Your task to perform on an android device: toggle priority inbox in the gmail app Image 0: 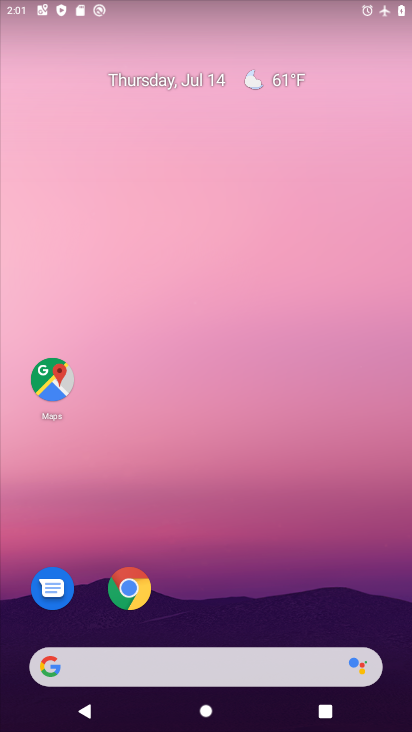
Step 0: drag from (283, 579) to (279, 143)
Your task to perform on an android device: toggle priority inbox in the gmail app Image 1: 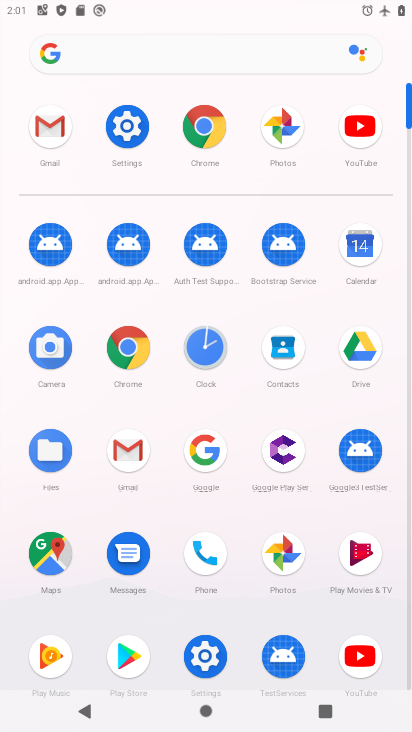
Step 1: click (135, 444)
Your task to perform on an android device: toggle priority inbox in the gmail app Image 2: 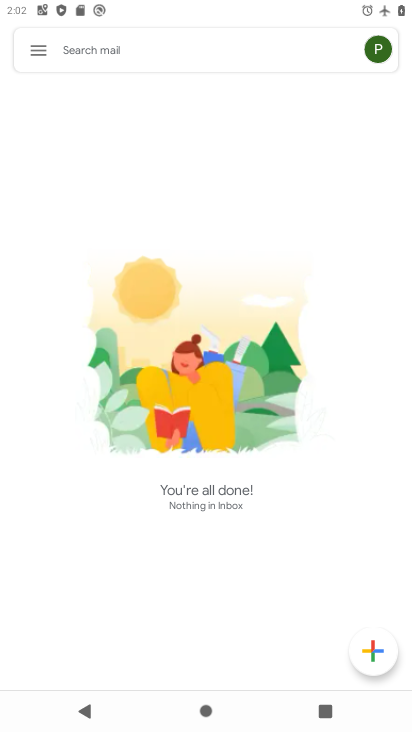
Step 2: click (31, 40)
Your task to perform on an android device: toggle priority inbox in the gmail app Image 3: 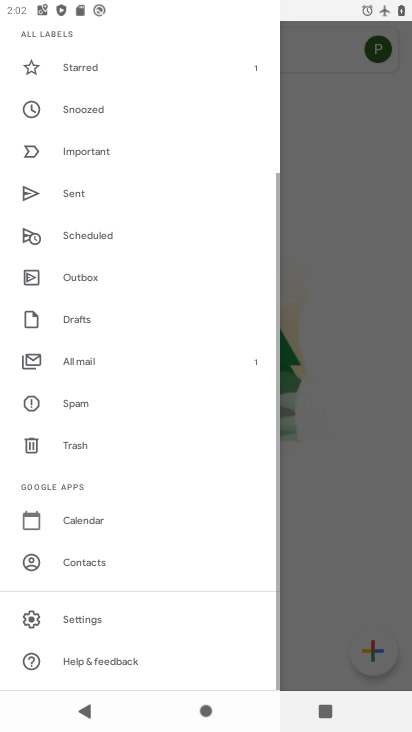
Step 3: click (33, 45)
Your task to perform on an android device: toggle priority inbox in the gmail app Image 4: 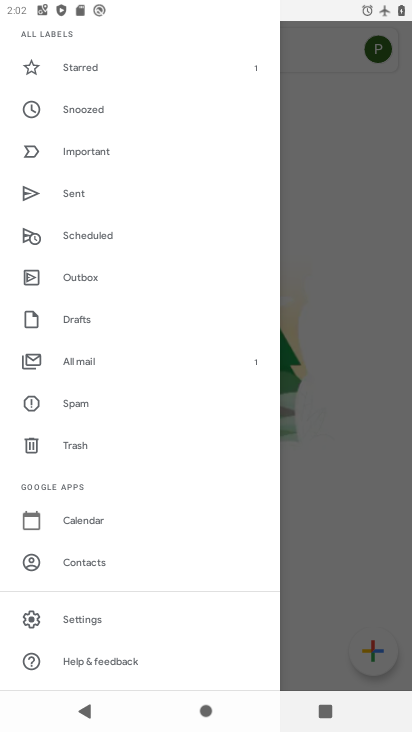
Step 4: click (77, 624)
Your task to perform on an android device: toggle priority inbox in the gmail app Image 5: 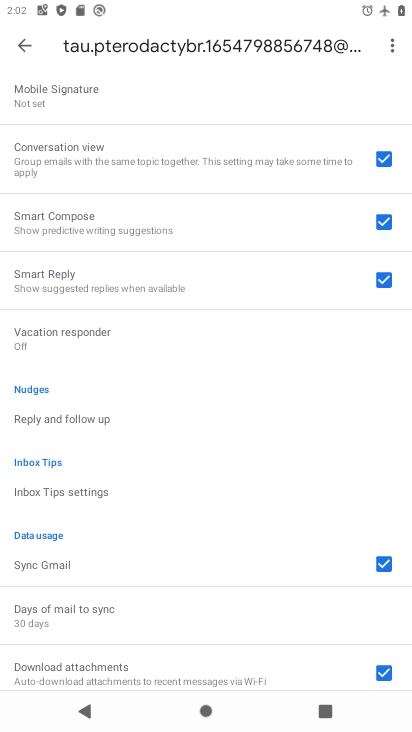
Step 5: drag from (130, 133) to (157, 650)
Your task to perform on an android device: toggle priority inbox in the gmail app Image 6: 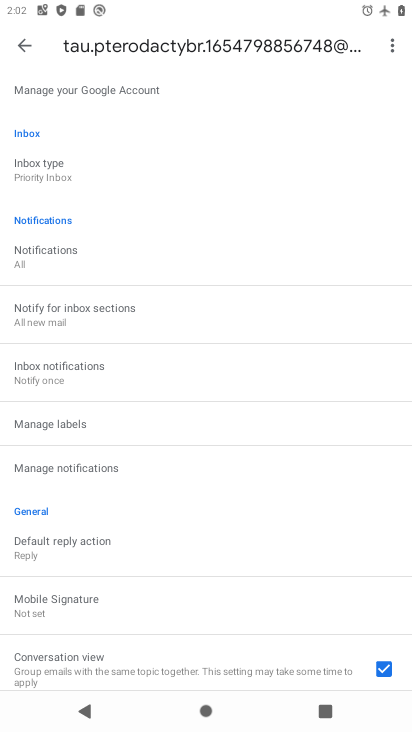
Step 6: click (76, 165)
Your task to perform on an android device: toggle priority inbox in the gmail app Image 7: 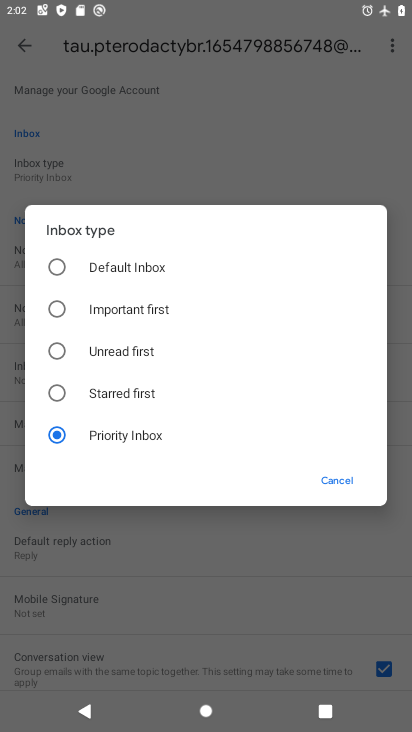
Step 7: click (105, 259)
Your task to perform on an android device: toggle priority inbox in the gmail app Image 8: 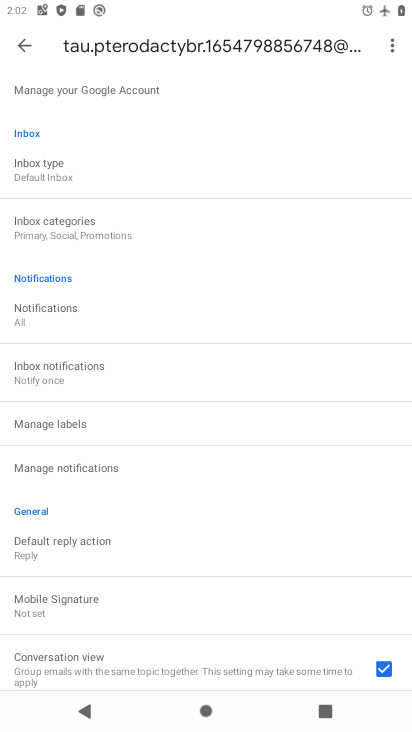
Step 8: task complete